Your task to perform on an android device: add a contact in the contacts app Image 0: 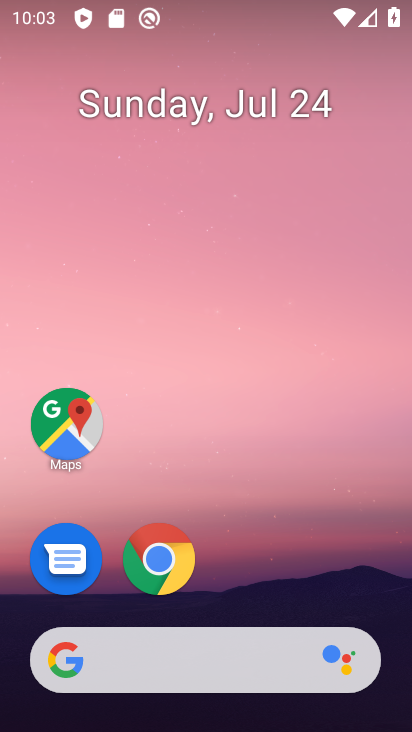
Step 0: drag from (238, 594) to (299, 7)
Your task to perform on an android device: add a contact in the contacts app Image 1: 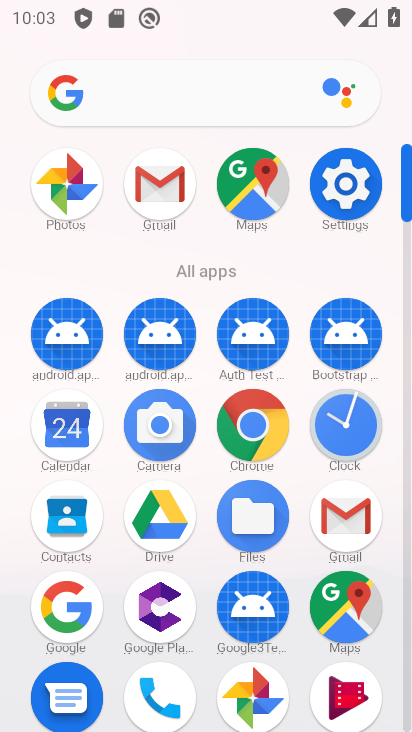
Step 1: click (57, 521)
Your task to perform on an android device: add a contact in the contacts app Image 2: 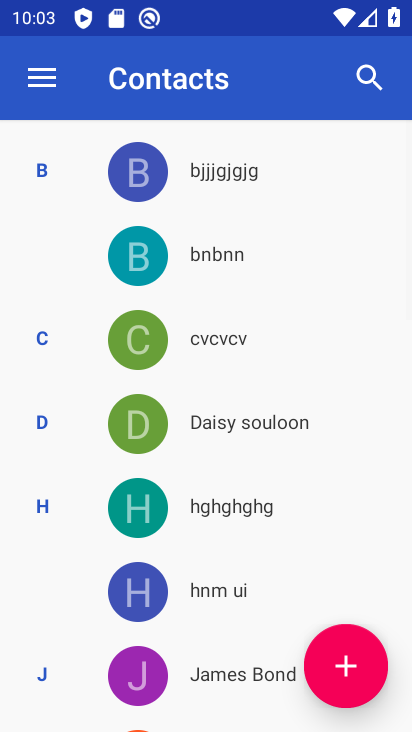
Step 2: click (335, 662)
Your task to perform on an android device: add a contact in the contacts app Image 3: 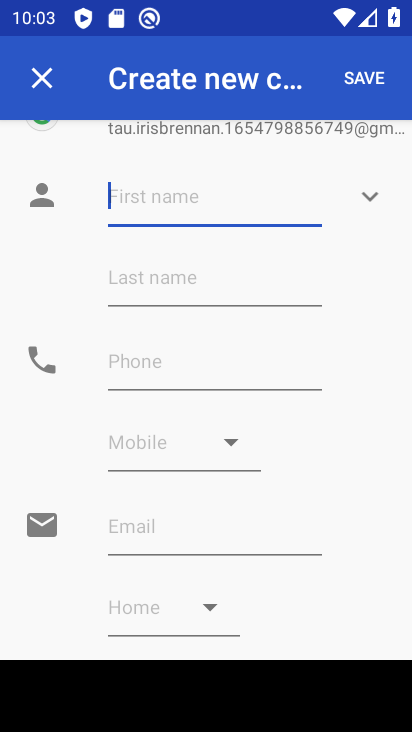
Step 3: click (143, 196)
Your task to perform on an android device: add a contact in the contacts app Image 4: 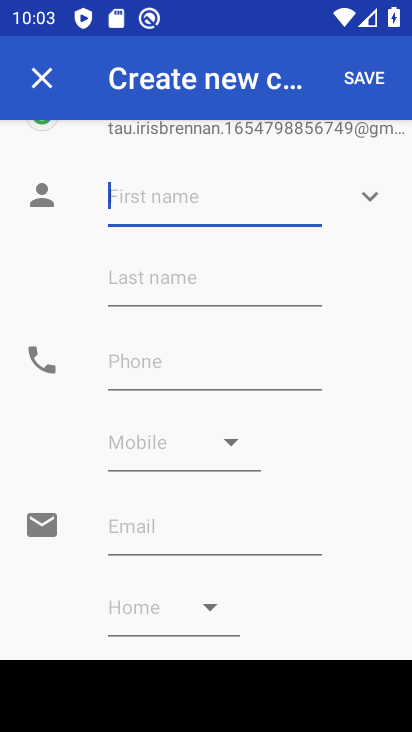
Step 4: type "fdfb"
Your task to perform on an android device: add a contact in the contacts app Image 5: 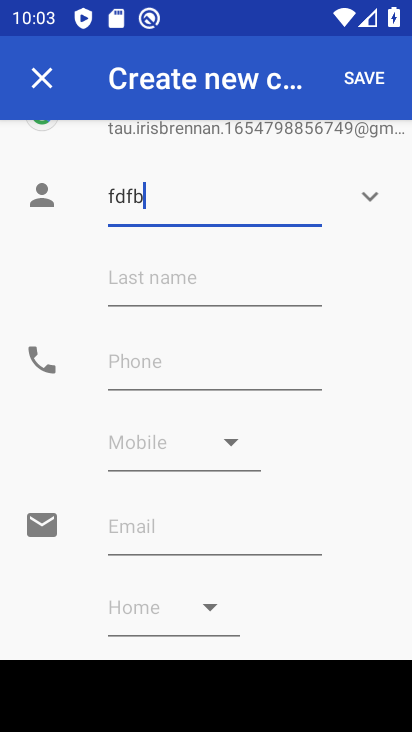
Step 5: click (153, 338)
Your task to perform on an android device: add a contact in the contacts app Image 6: 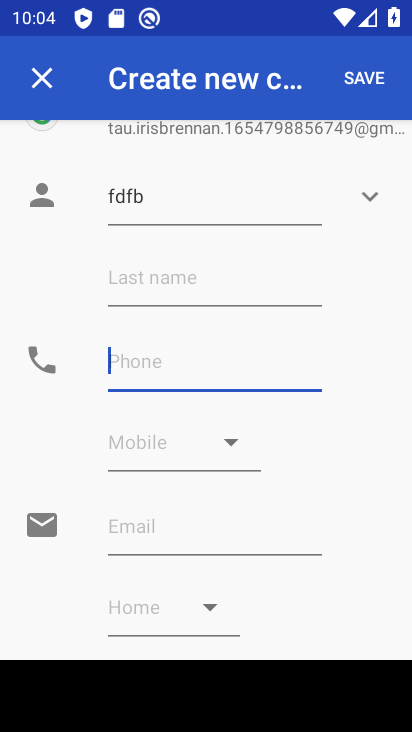
Step 6: type "676575"
Your task to perform on an android device: add a contact in the contacts app Image 7: 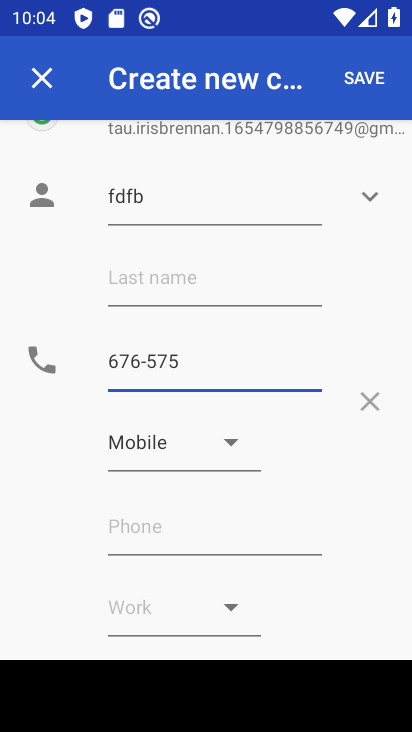
Step 7: click (357, 80)
Your task to perform on an android device: add a contact in the contacts app Image 8: 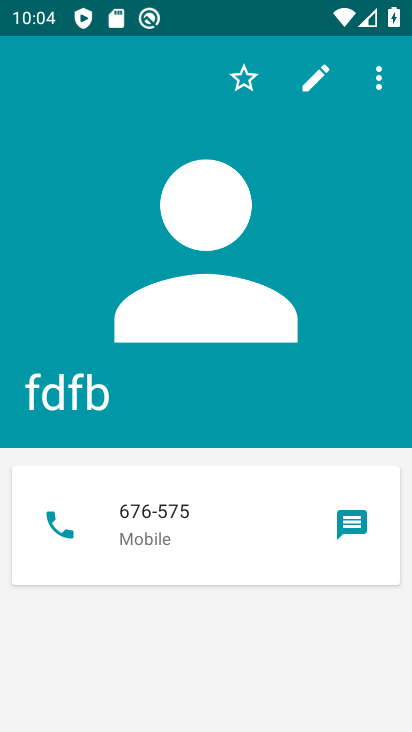
Step 8: task complete